Your task to perform on an android device: search for starred emails in the gmail app Image 0: 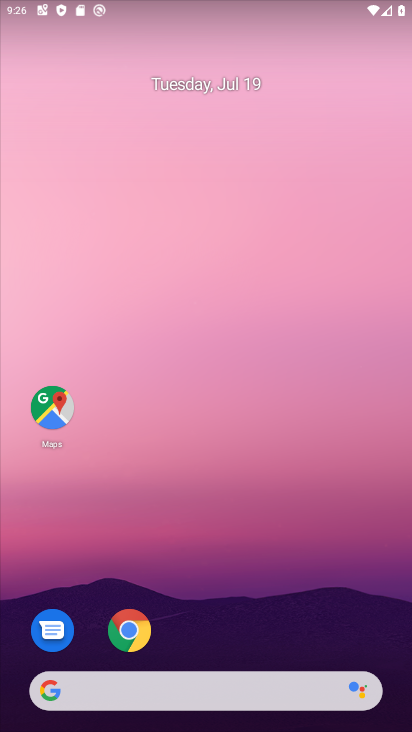
Step 0: drag from (250, 694) to (238, 141)
Your task to perform on an android device: search for starred emails in the gmail app Image 1: 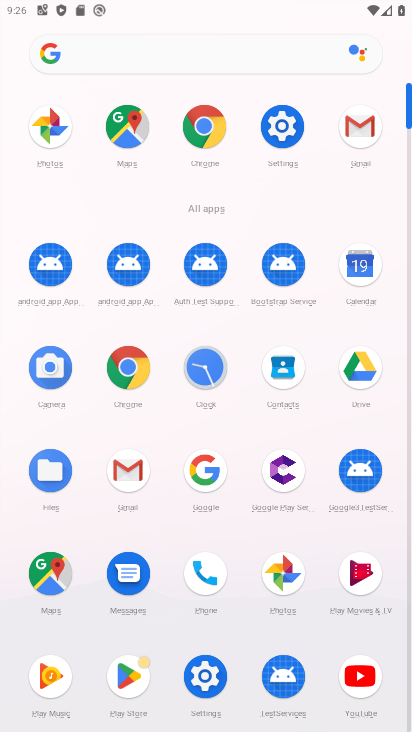
Step 1: click (121, 480)
Your task to perform on an android device: search for starred emails in the gmail app Image 2: 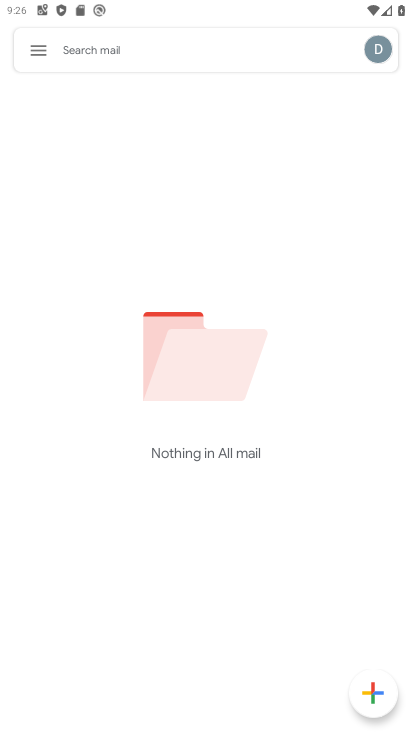
Step 2: click (44, 60)
Your task to perform on an android device: search for starred emails in the gmail app Image 3: 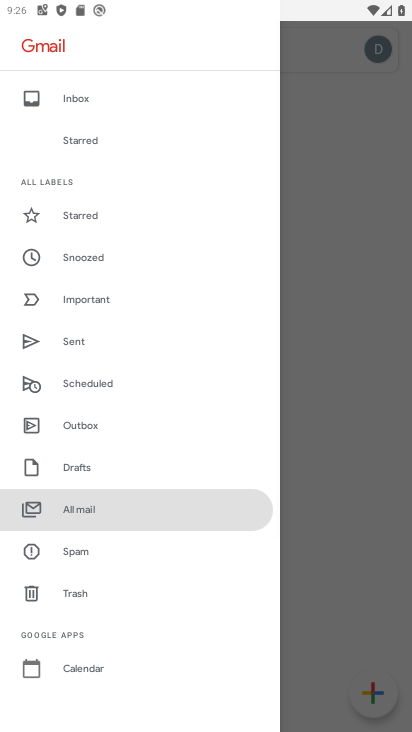
Step 3: click (90, 141)
Your task to perform on an android device: search for starred emails in the gmail app Image 4: 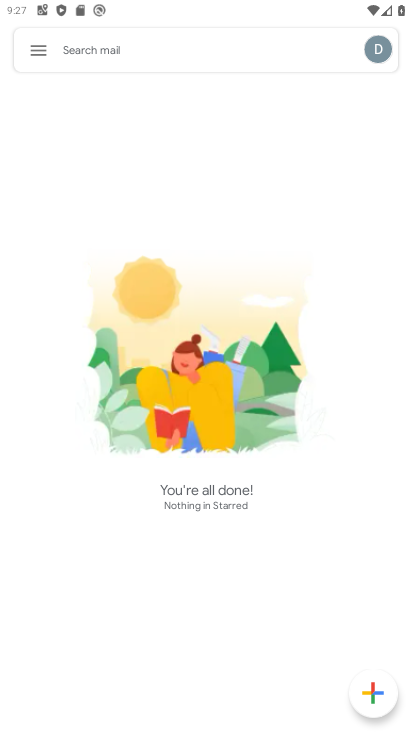
Step 4: task complete